Your task to perform on an android device: Open privacy settings Image 0: 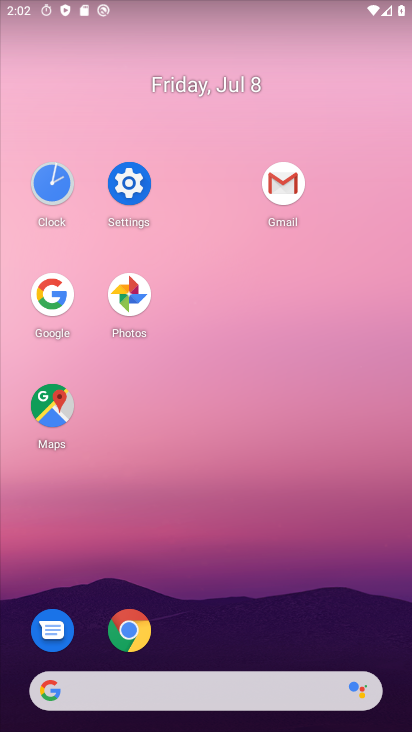
Step 0: click (132, 185)
Your task to perform on an android device: Open privacy settings Image 1: 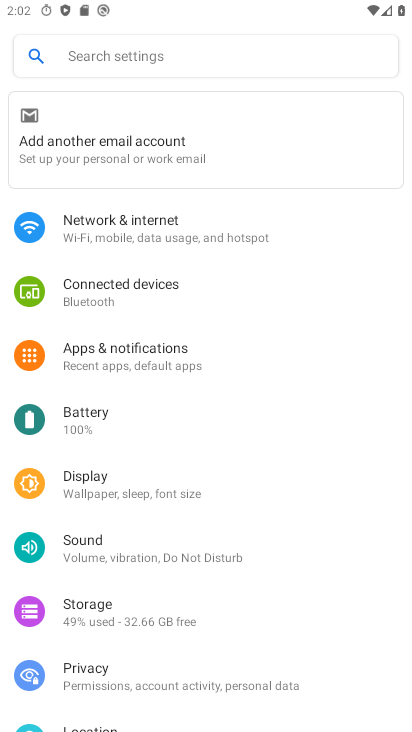
Step 1: click (98, 671)
Your task to perform on an android device: Open privacy settings Image 2: 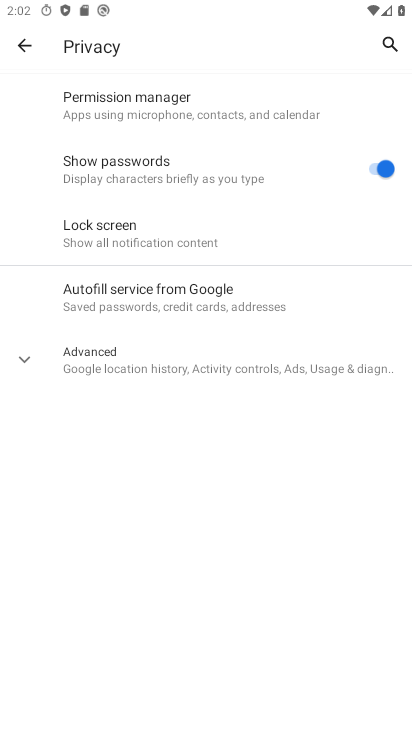
Step 2: task complete